Your task to perform on an android device: toggle location history Image 0: 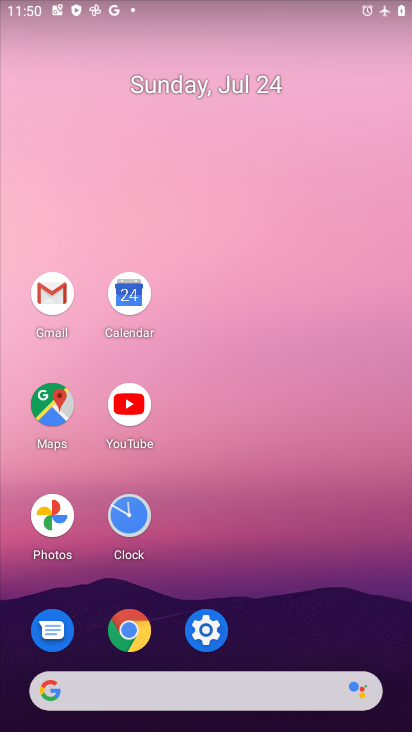
Step 0: click (51, 414)
Your task to perform on an android device: toggle location history Image 1: 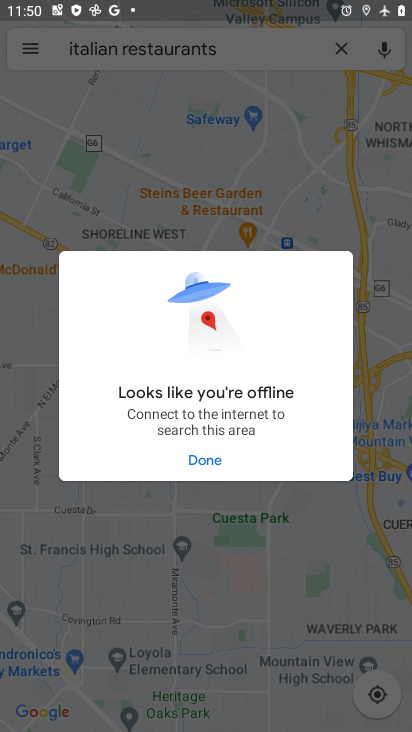
Step 1: click (205, 460)
Your task to perform on an android device: toggle location history Image 2: 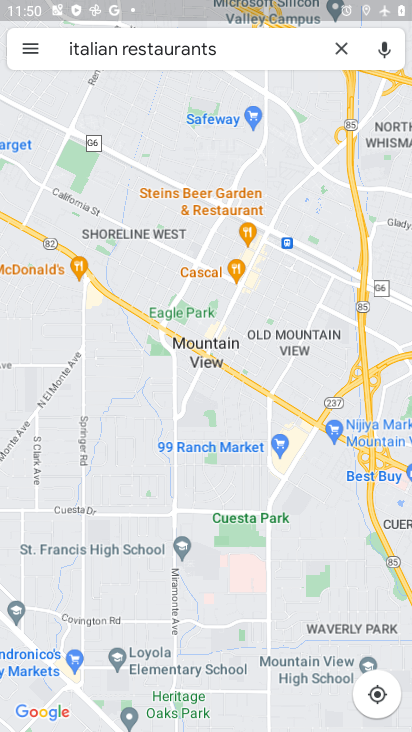
Step 2: click (27, 50)
Your task to perform on an android device: toggle location history Image 3: 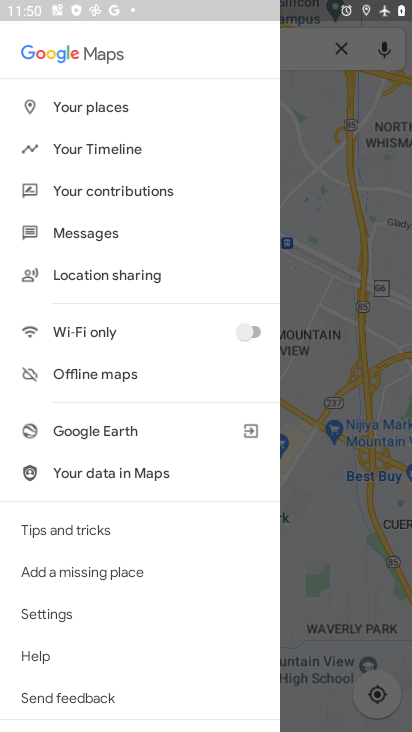
Step 3: click (97, 149)
Your task to perform on an android device: toggle location history Image 4: 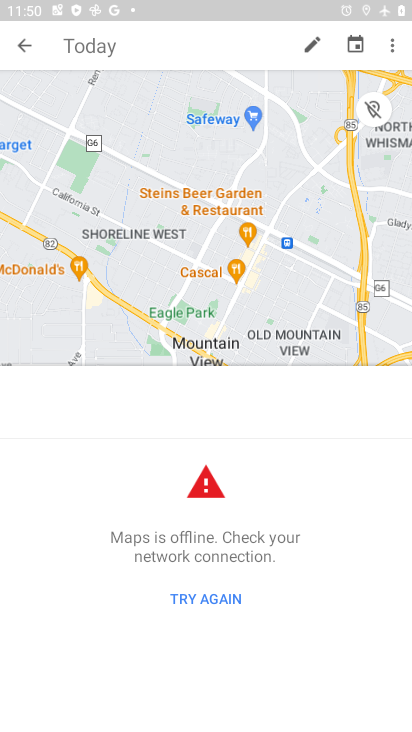
Step 4: click (392, 46)
Your task to perform on an android device: toggle location history Image 5: 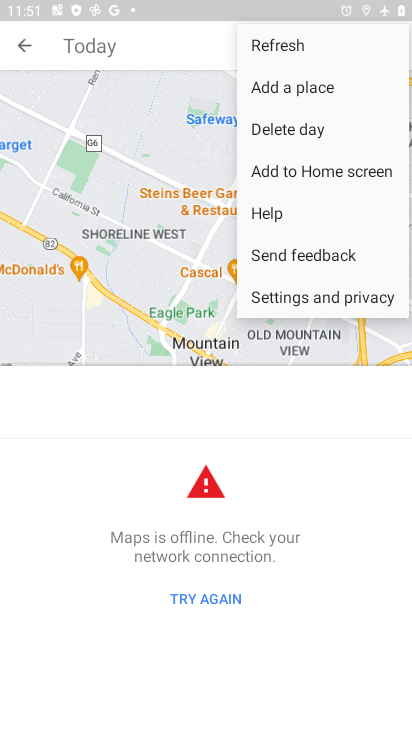
Step 5: click (303, 358)
Your task to perform on an android device: toggle location history Image 6: 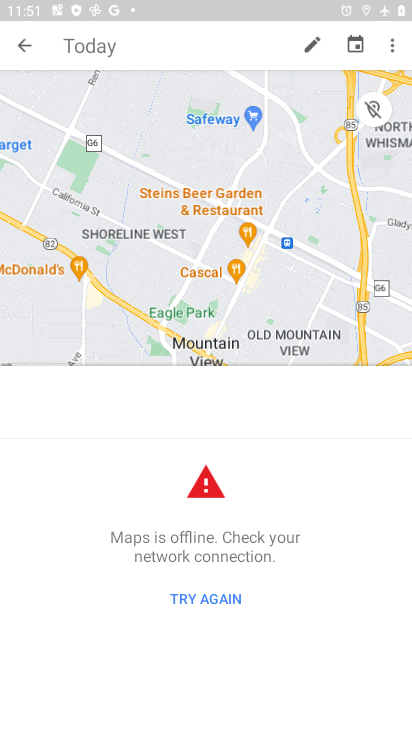
Step 6: click (402, 56)
Your task to perform on an android device: toggle location history Image 7: 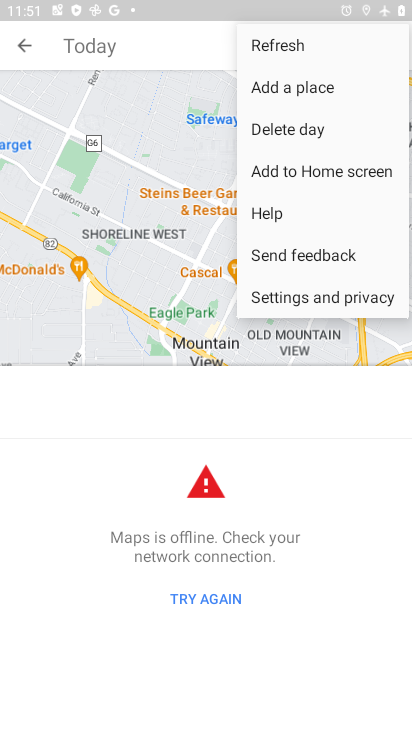
Step 7: click (296, 290)
Your task to perform on an android device: toggle location history Image 8: 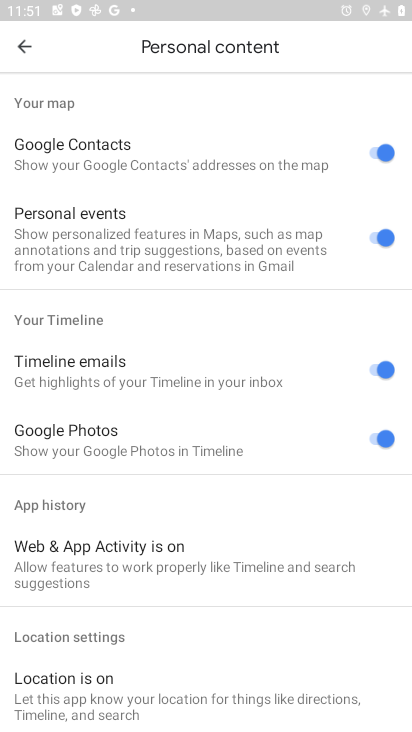
Step 8: click (250, 249)
Your task to perform on an android device: toggle location history Image 9: 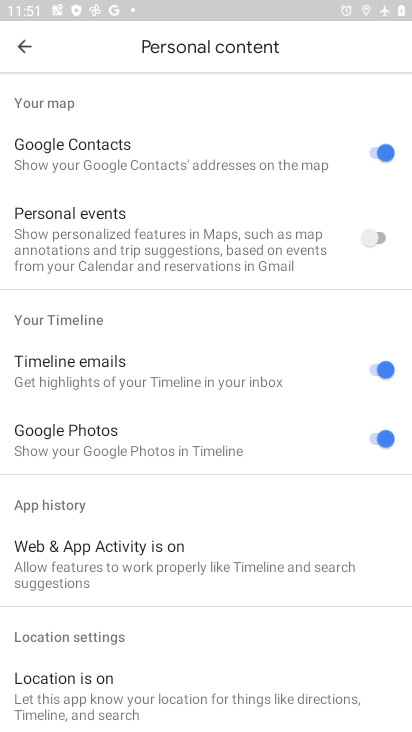
Step 9: click (163, 226)
Your task to perform on an android device: toggle location history Image 10: 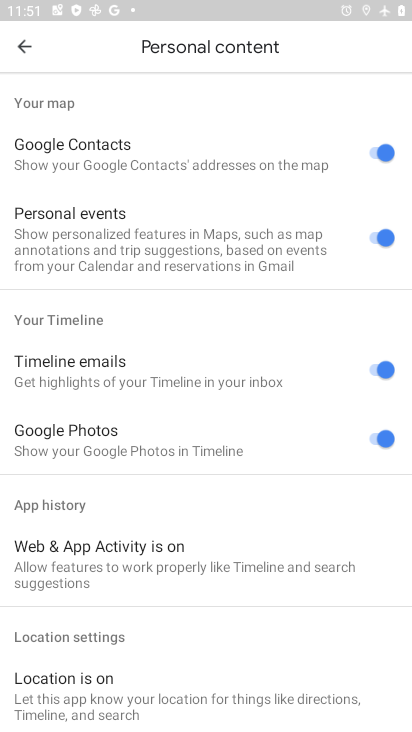
Step 10: drag from (247, 602) to (245, 246)
Your task to perform on an android device: toggle location history Image 11: 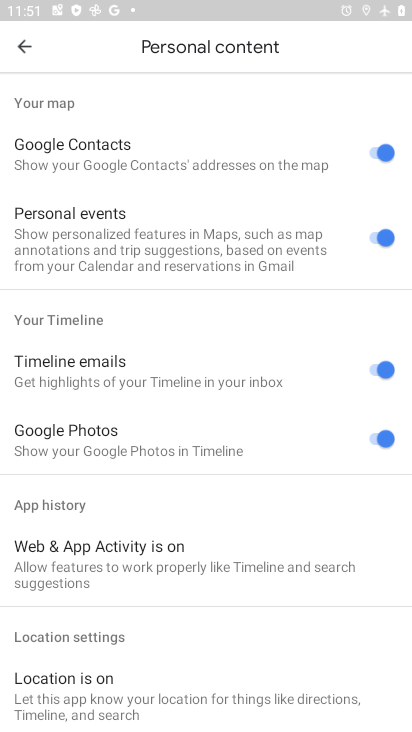
Step 11: drag from (179, 635) to (186, 33)
Your task to perform on an android device: toggle location history Image 12: 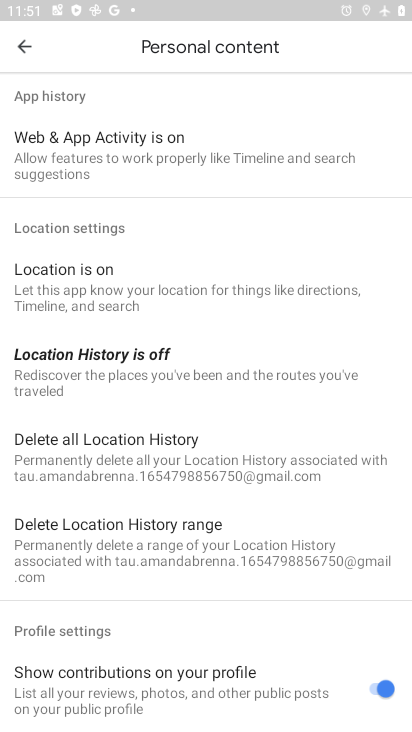
Step 12: click (57, 344)
Your task to perform on an android device: toggle location history Image 13: 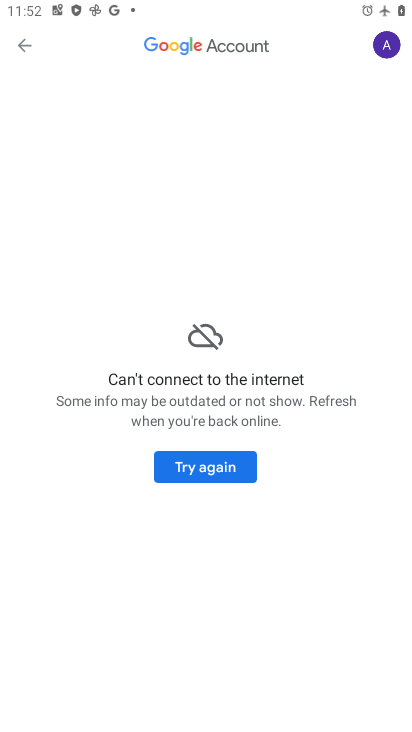
Step 13: task complete